Your task to perform on an android device: open app "Google Play Games" (install if not already installed) Image 0: 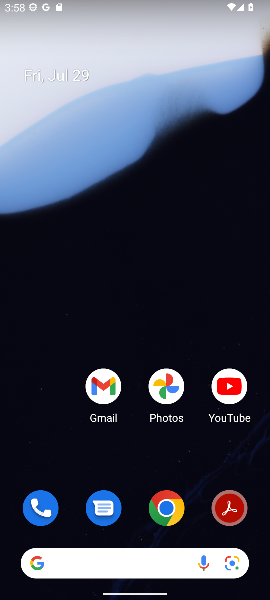
Step 0: drag from (235, 477) to (132, 41)
Your task to perform on an android device: open app "Google Play Games" (install if not already installed) Image 1: 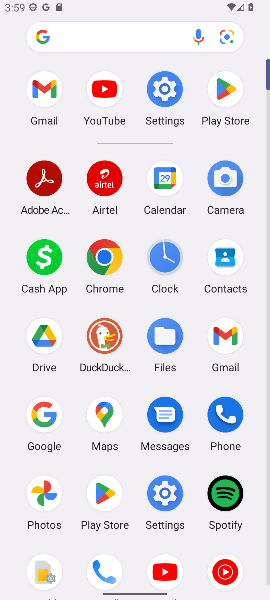
Step 1: click (103, 492)
Your task to perform on an android device: open app "Google Play Games" (install if not already installed) Image 2: 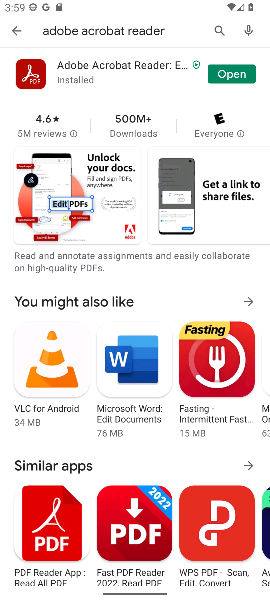
Step 2: press back button
Your task to perform on an android device: open app "Google Play Games" (install if not already installed) Image 3: 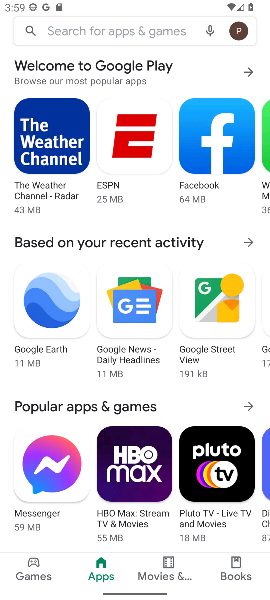
Step 3: click (91, 30)
Your task to perform on an android device: open app "Google Play Games" (install if not already installed) Image 4: 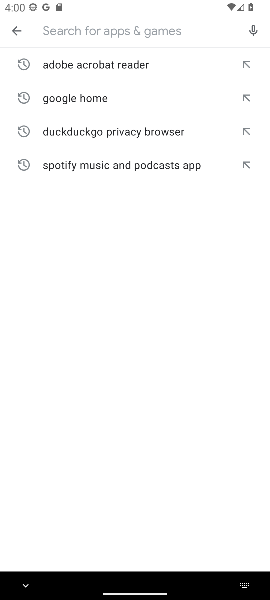
Step 4: type "Google Play Games"
Your task to perform on an android device: open app "Google Play Games" (install if not already installed) Image 5: 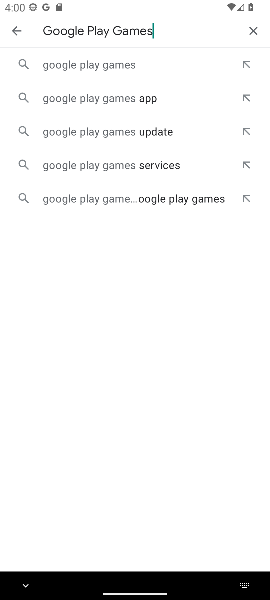
Step 5: click (105, 71)
Your task to perform on an android device: open app "Google Play Games" (install if not already installed) Image 6: 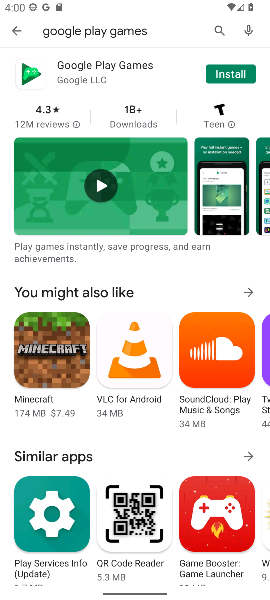
Step 6: task complete